Your task to perform on an android device: empty trash in google photos Image 0: 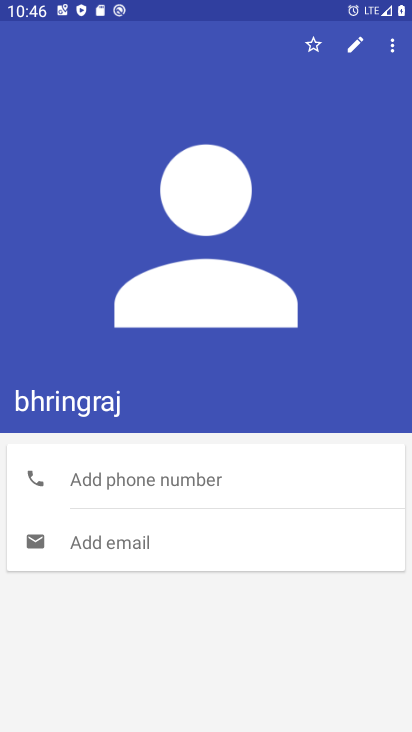
Step 0: press home button
Your task to perform on an android device: empty trash in google photos Image 1: 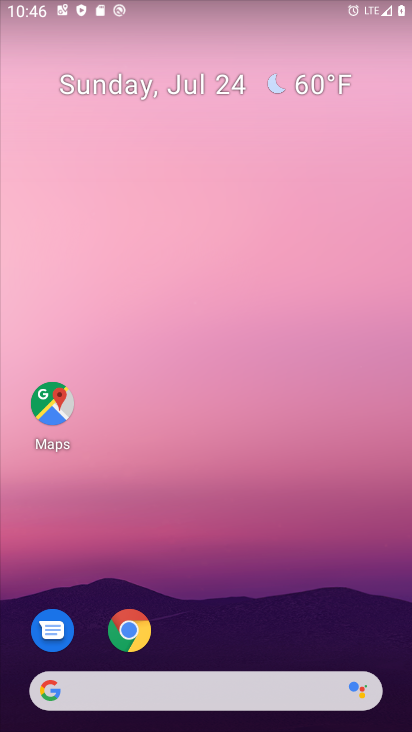
Step 1: drag from (202, 645) to (203, 5)
Your task to perform on an android device: empty trash in google photos Image 2: 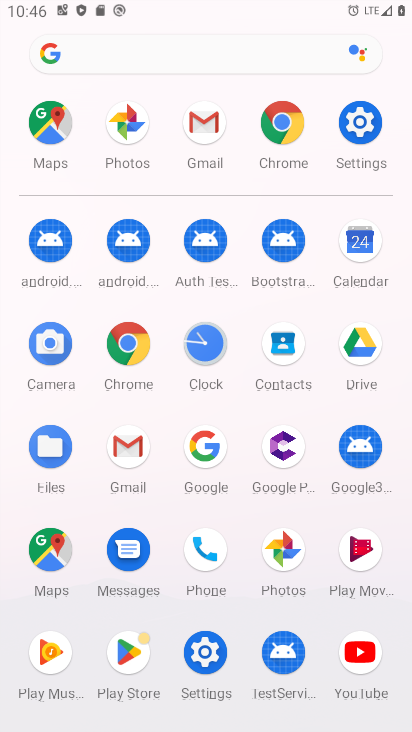
Step 2: click (269, 560)
Your task to perform on an android device: empty trash in google photos Image 3: 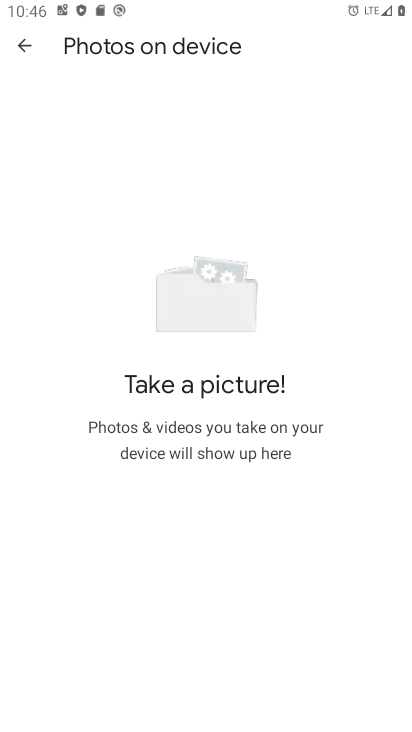
Step 3: click (29, 40)
Your task to perform on an android device: empty trash in google photos Image 4: 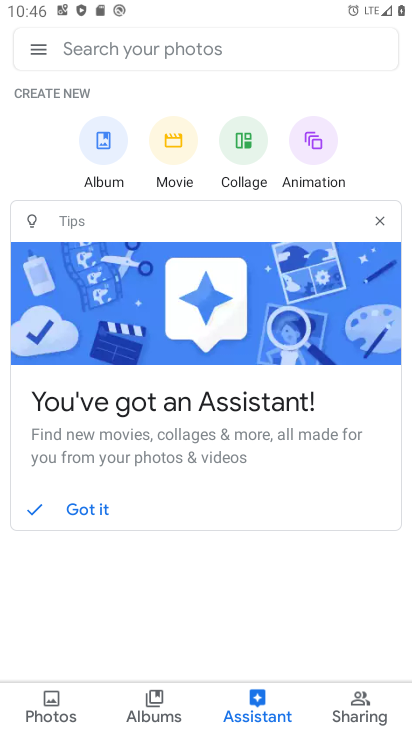
Step 4: click (29, 40)
Your task to perform on an android device: empty trash in google photos Image 5: 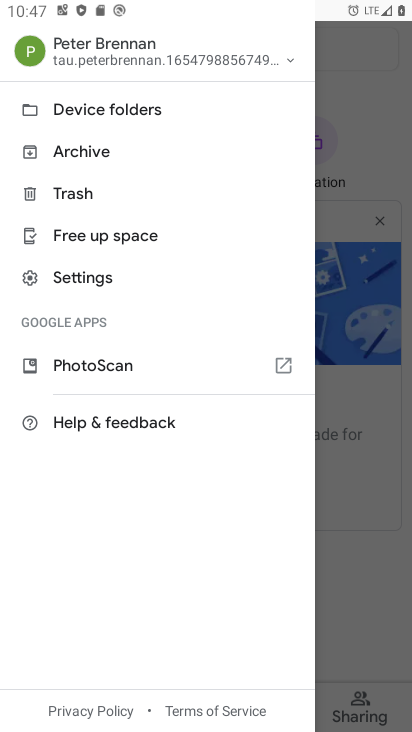
Step 5: click (78, 190)
Your task to perform on an android device: empty trash in google photos Image 6: 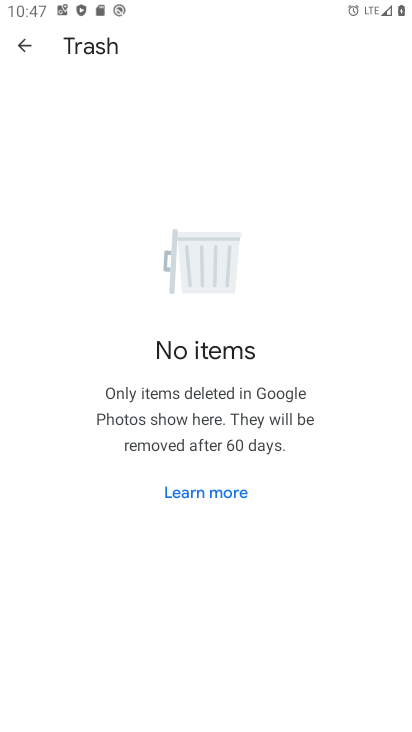
Step 6: task complete